Your task to perform on an android device: turn pop-ups on in chrome Image 0: 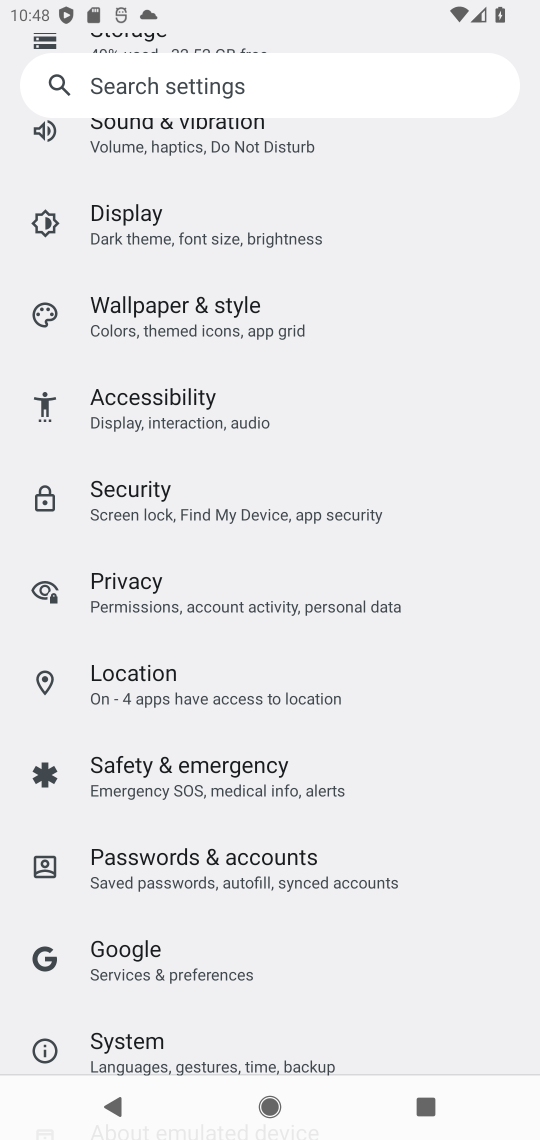
Step 0: press home button
Your task to perform on an android device: turn pop-ups on in chrome Image 1: 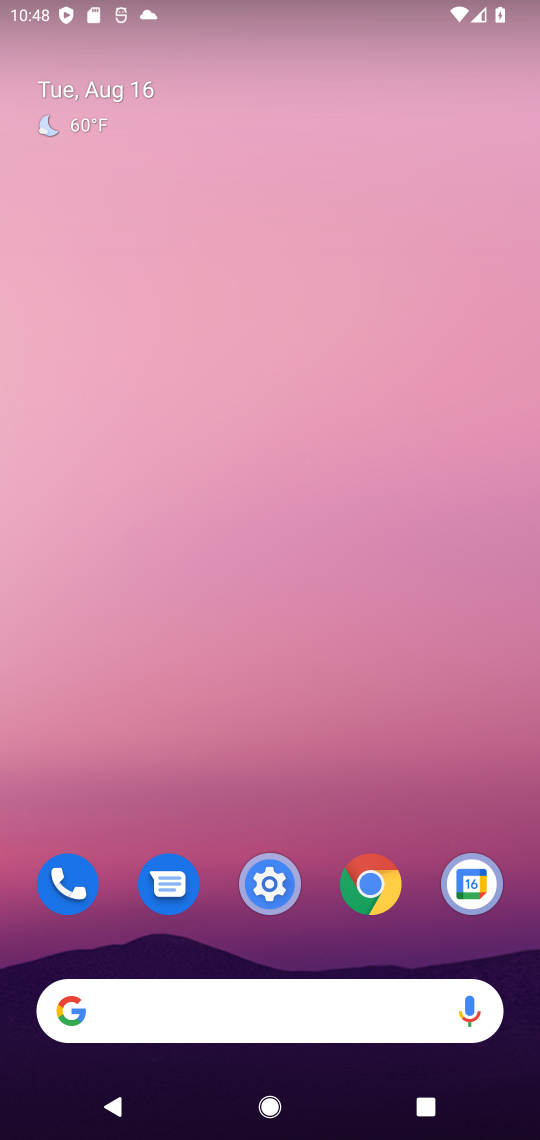
Step 1: click (379, 878)
Your task to perform on an android device: turn pop-ups on in chrome Image 2: 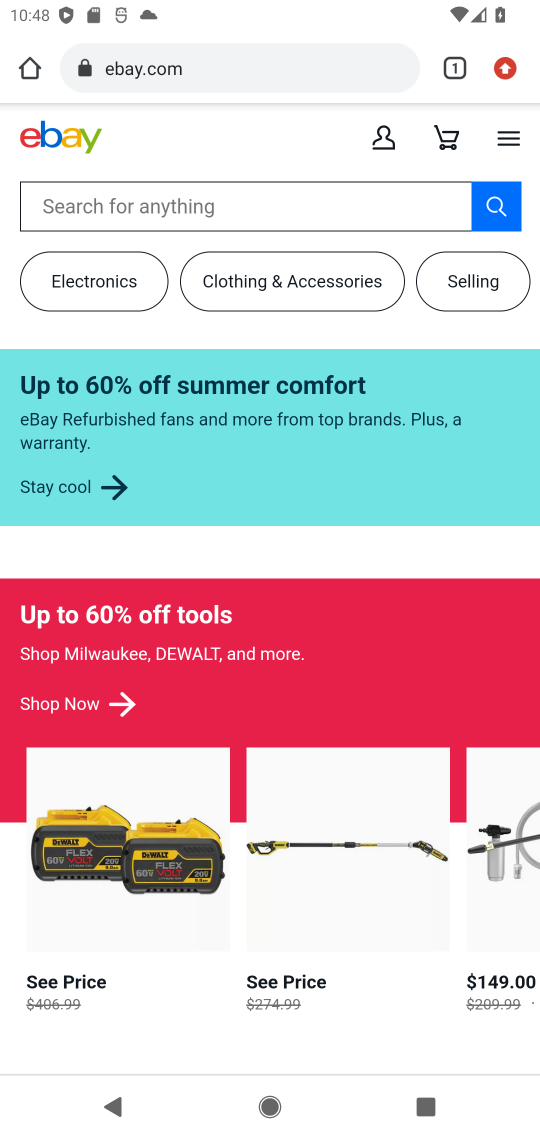
Step 2: click (511, 72)
Your task to perform on an android device: turn pop-ups on in chrome Image 3: 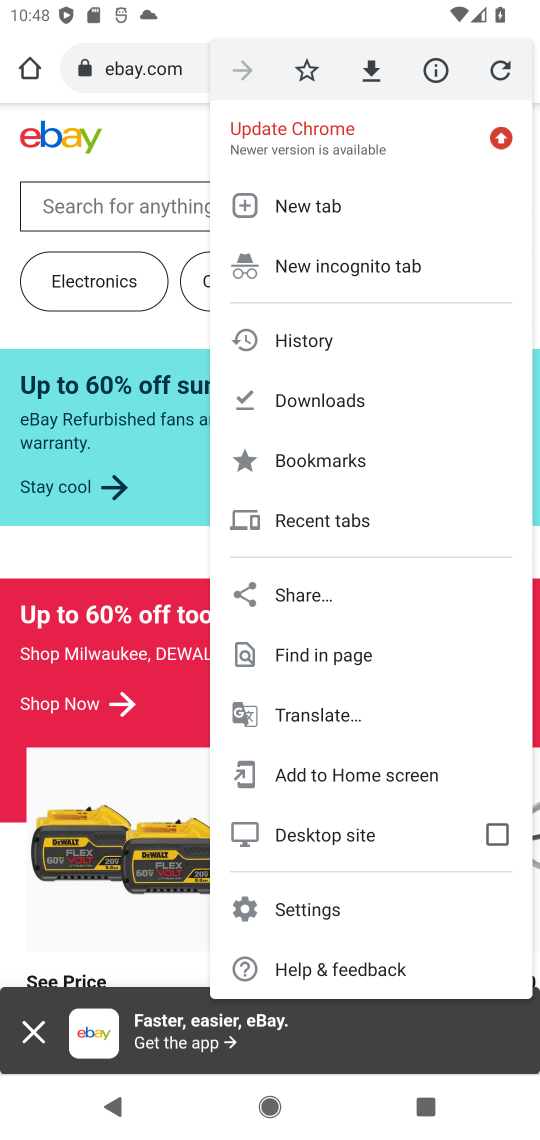
Step 3: click (335, 911)
Your task to perform on an android device: turn pop-ups on in chrome Image 4: 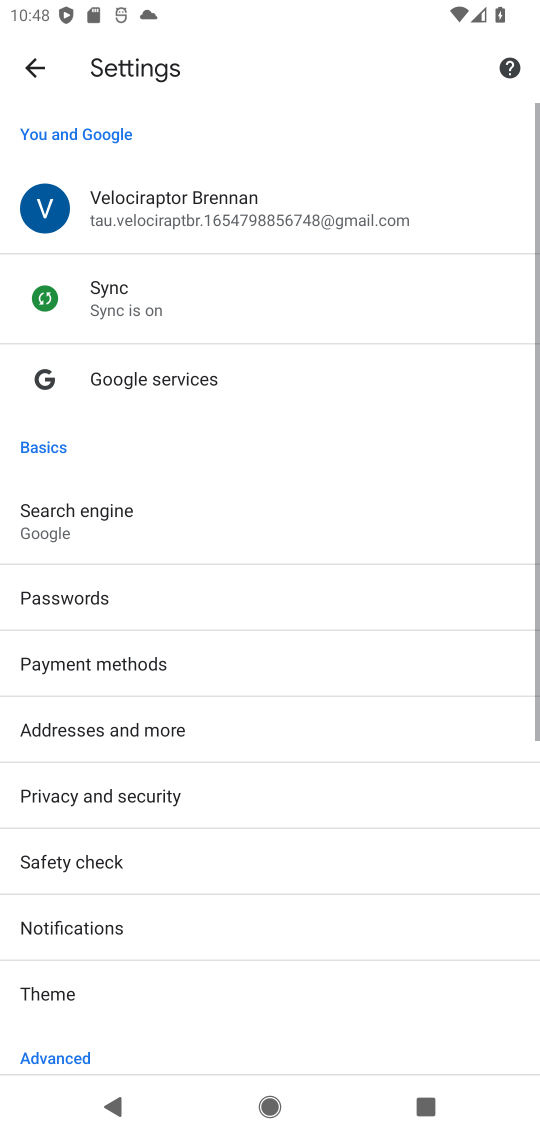
Step 4: drag from (146, 937) to (233, 229)
Your task to perform on an android device: turn pop-ups on in chrome Image 5: 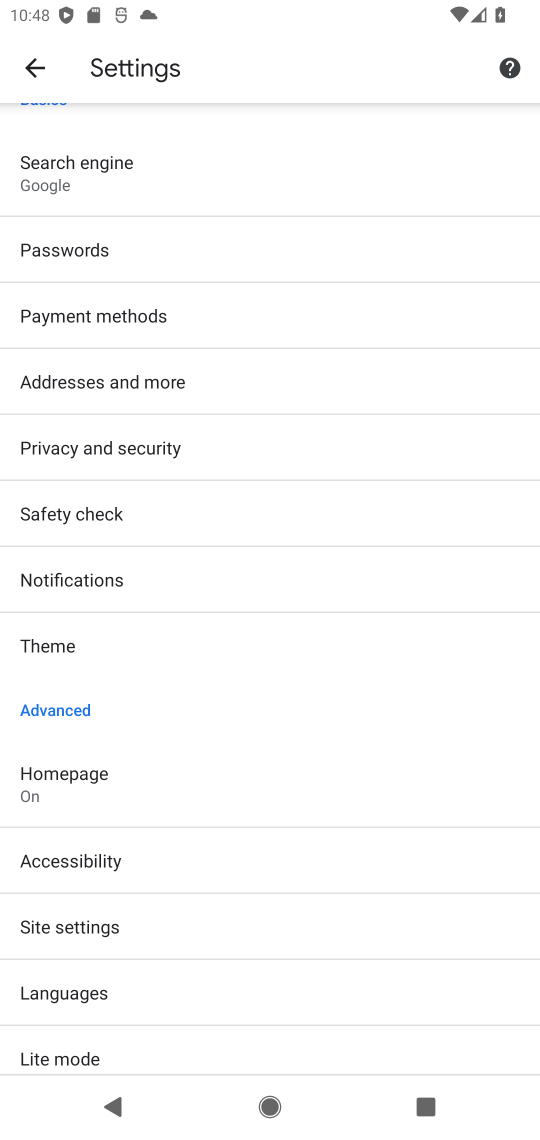
Step 5: click (82, 943)
Your task to perform on an android device: turn pop-ups on in chrome Image 6: 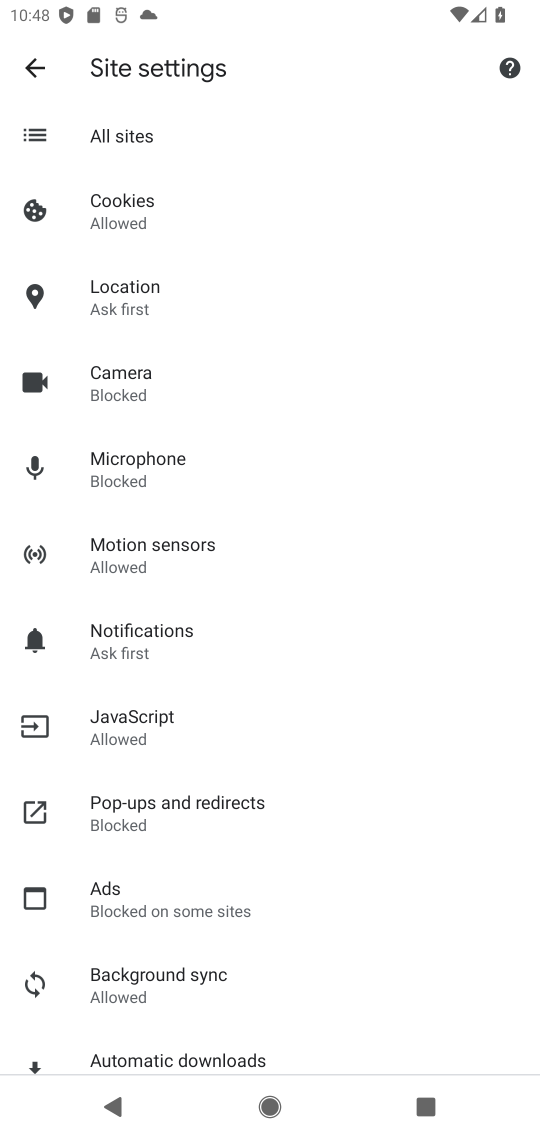
Step 6: click (141, 812)
Your task to perform on an android device: turn pop-ups on in chrome Image 7: 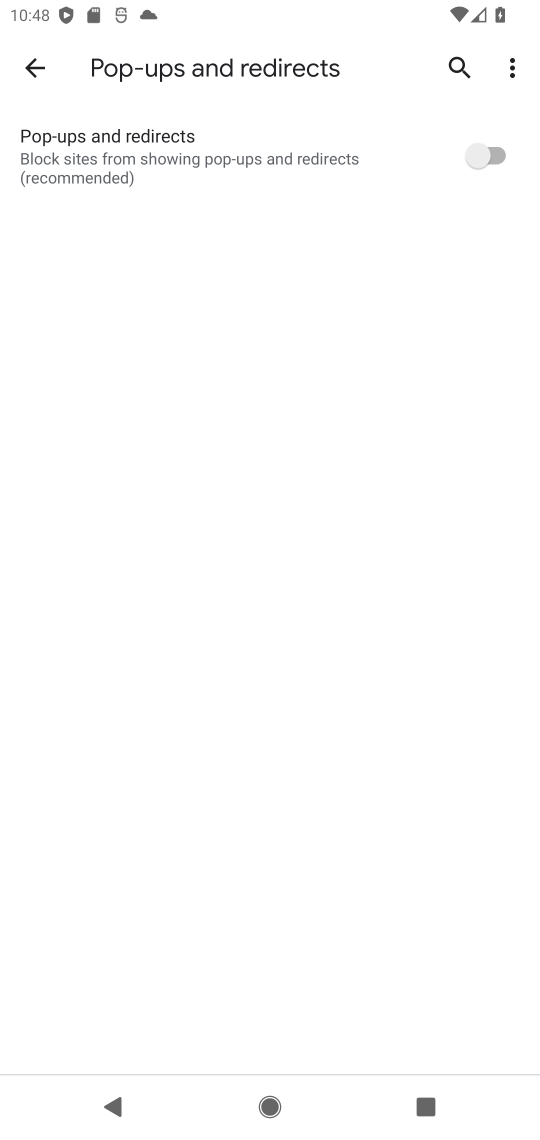
Step 7: click (497, 163)
Your task to perform on an android device: turn pop-ups on in chrome Image 8: 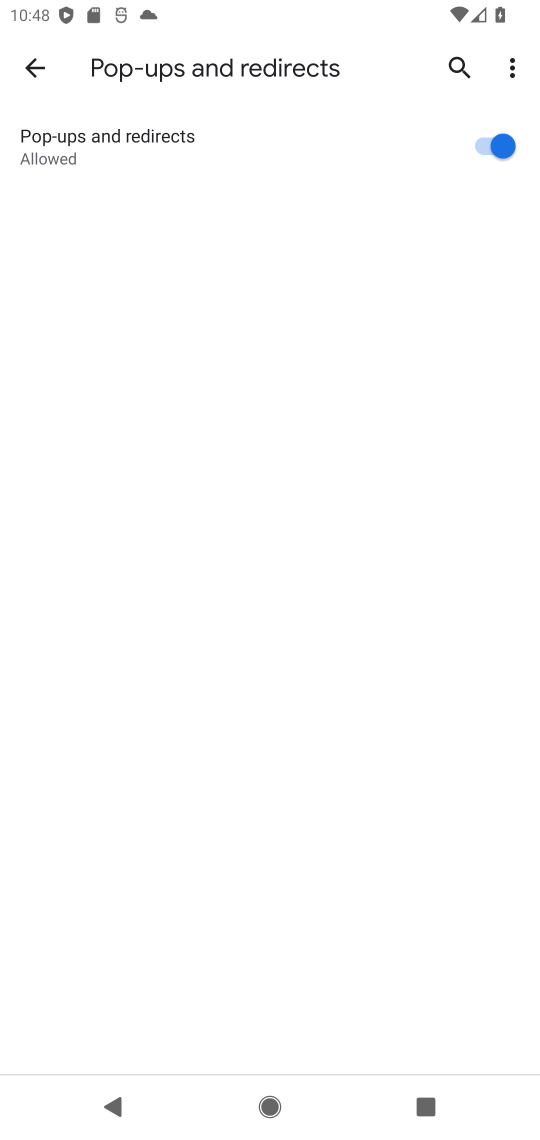
Step 8: task complete